Your task to perform on an android device: Set the phone to "Do not disturb". Image 0: 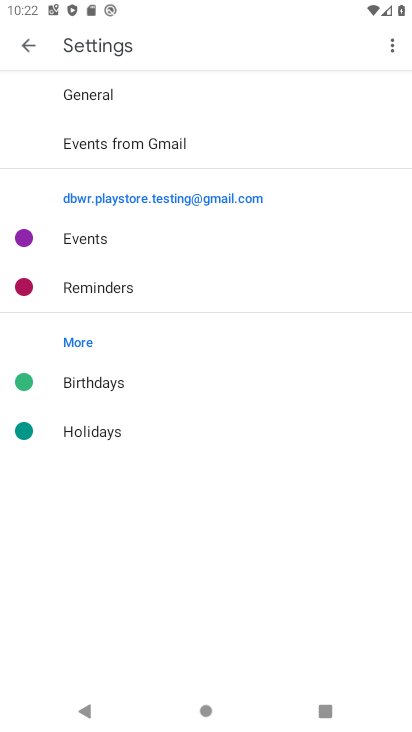
Step 0: press home button
Your task to perform on an android device: Set the phone to "Do not disturb". Image 1: 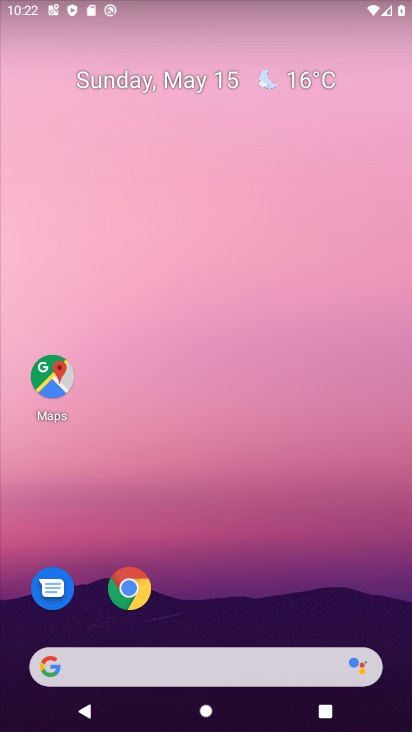
Step 1: drag from (159, 624) to (293, 6)
Your task to perform on an android device: Set the phone to "Do not disturb". Image 2: 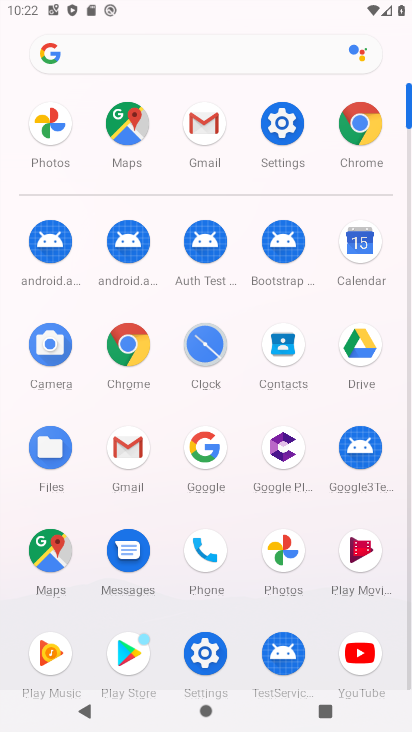
Step 2: click (282, 133)
Your task to perform on an android device: Set the phone to "Do not disturb". Image 3: 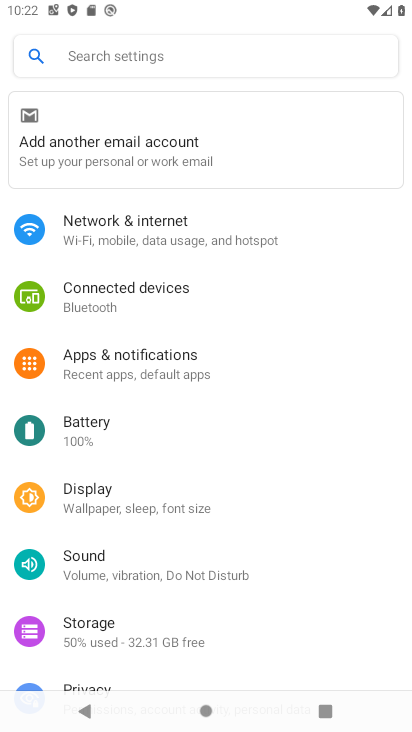
Step 3: click (136, 555)
Your task to perform on an android device: Set the phone to "Do not disturb". Image 4: 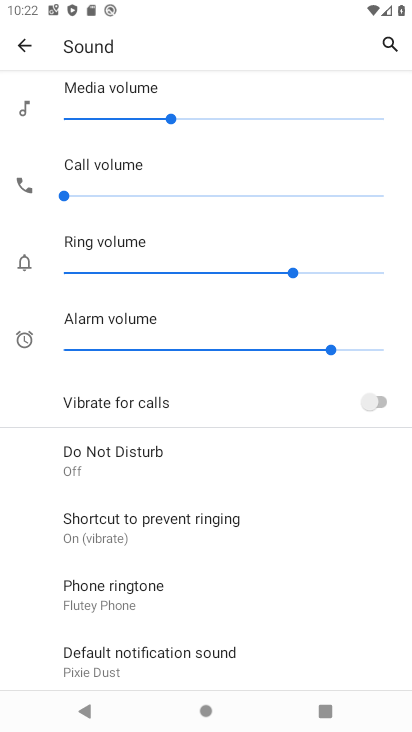
Step 4: click (160, 461)
Your task to perform on an android device: Set the phone to "Do not disturb". Image 5: 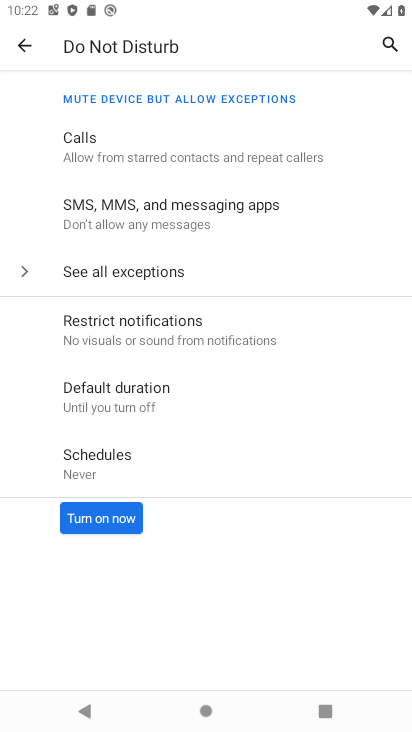
Step 5: click (101, 541)
Your task to perform on an android device: Set the phone to "Do not disturb". Image 6: 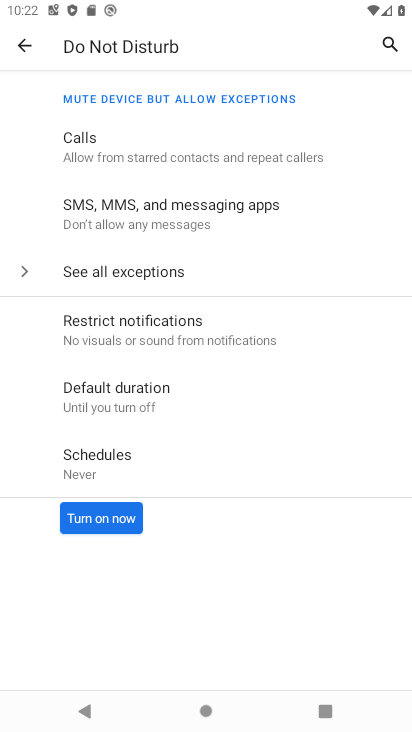
Step 6: click (103, 522)
Your task to perform on an android device: Set the phone to "Do not disturb". Image 7: 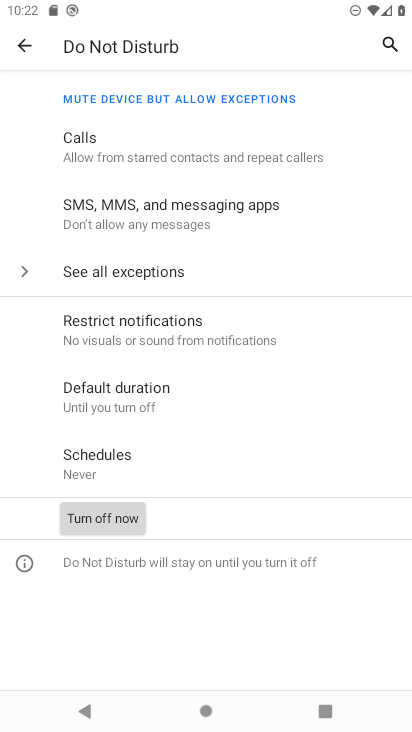
Step 7: task complete